Your task to perform on an android device: turn off data saver in the chrome app Image 0: 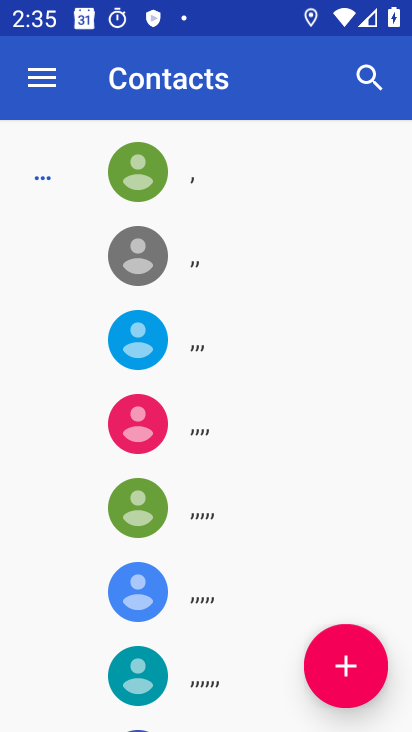
Step 0: press back button
Your task to perform on an android device: turn off data saver in the chrome app Image 1: 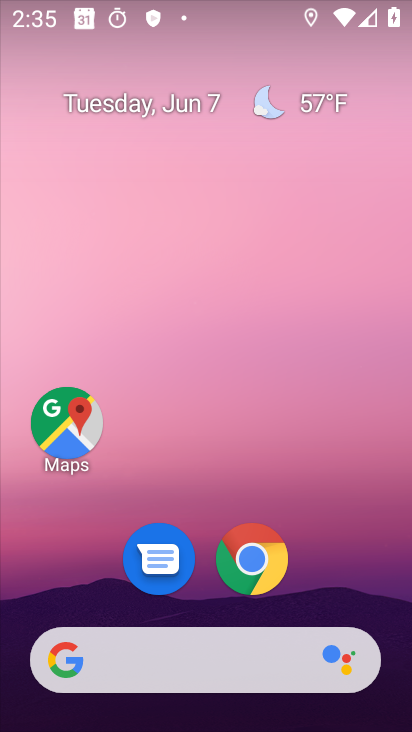
Step 1: drag from (348, 570) to (247, 14)
Your task to perform on an android device: turn off data saver in the chrome app Image 2: 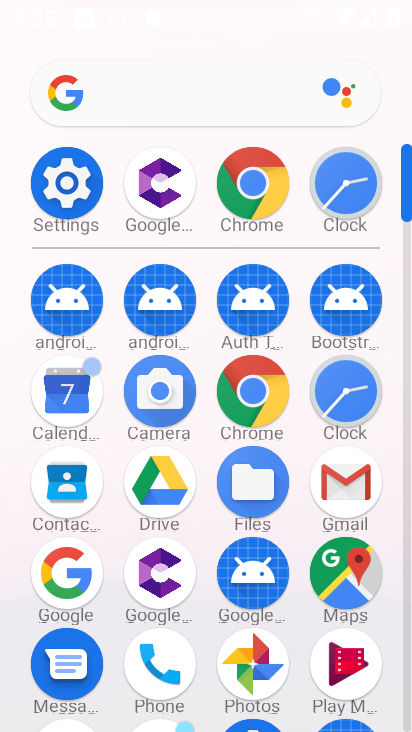
Step 2: click (254, 184)
Your task to perform on an android device: turn off data saver in the chrome app Image 3: 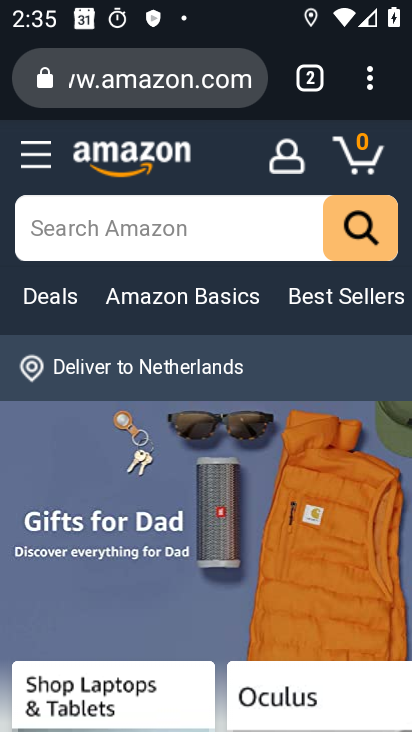
Step 3: drag from (368, 83) to (124, 616)
Your task to perform on an android device: turn off data saver in the chrome app Image 4: 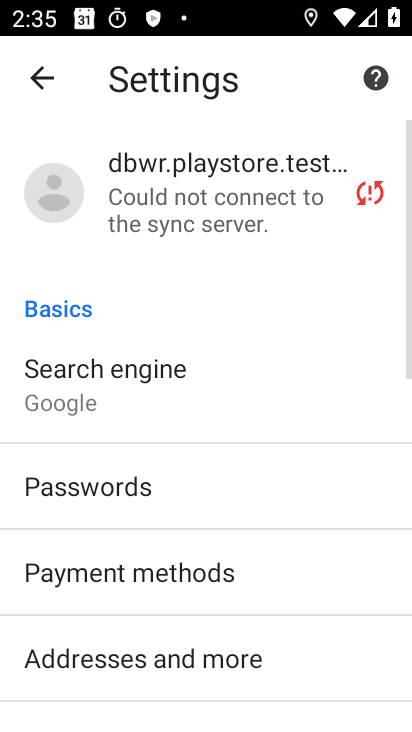
Step 4: drag from (263, 533) to (280, 155)
Your task to perform on an android device: turn off data saver in the chrome app Image 5: 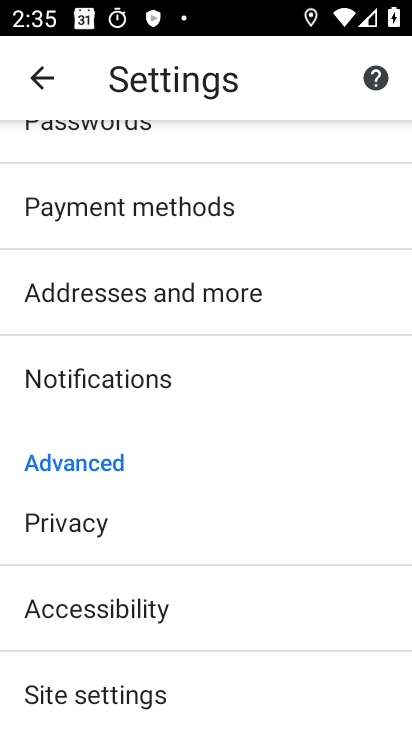
Step 5: drag from (256, 607) to (261, 143)
Your task to perform on an android device: turn off data saver in the chrome app Image 6: 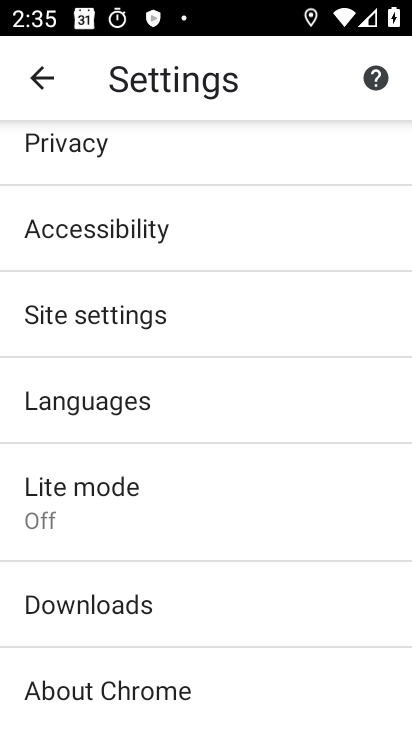
Step 6: click (190, 501)
Your task to perform on an android device: turn off data saver in the chrome app Image 7: 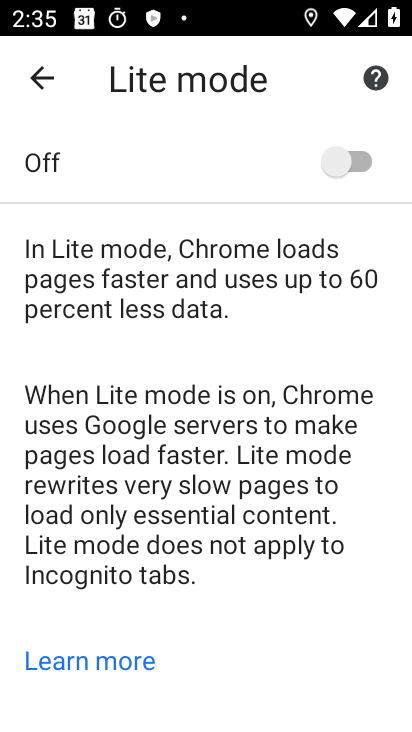
Step 7: task complete